Your task to perform on an android device: turn off data saver in the chrome app Image 0: 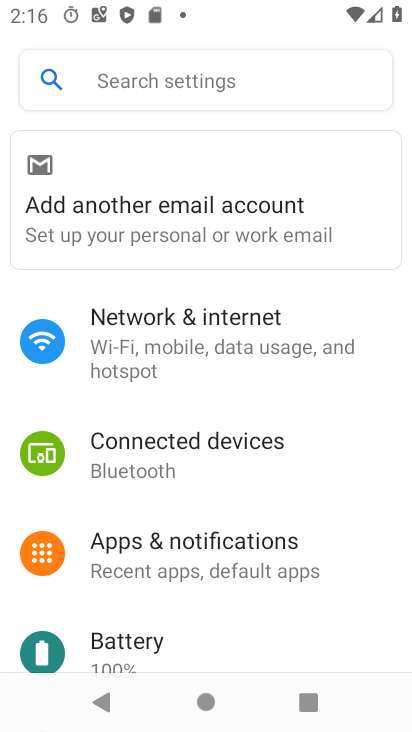
Step 0: press home button
Your task to perform on an android device: turn off data saver in the chrome app Image 1: 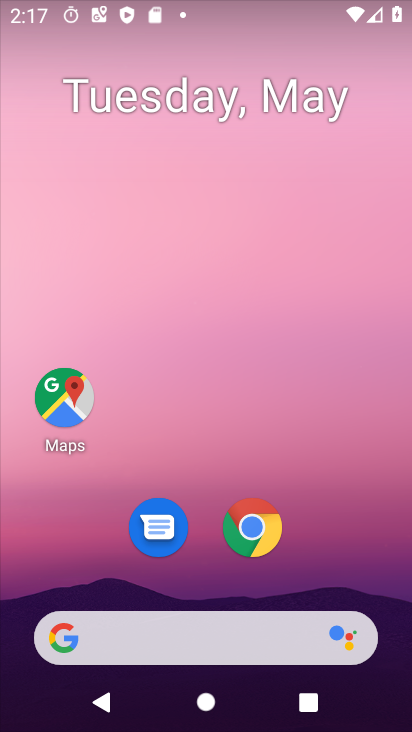
Step 1: drag from (270, 667) to (298, 228)
Your task to perform on an android device: turn off data saver in the chrome app Image 2: 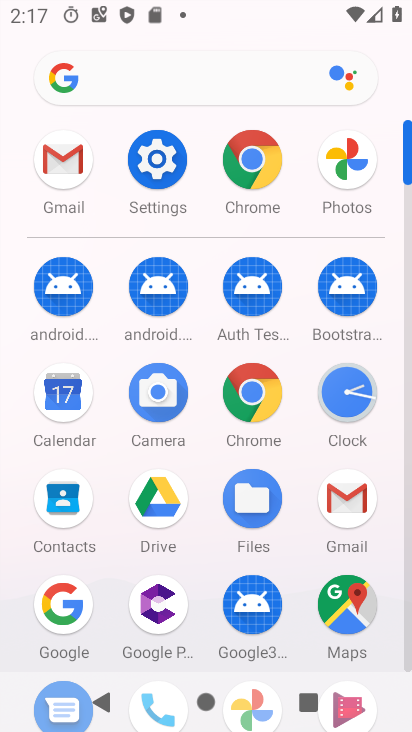
Step 2: click (260, 158)
Your task to perform on an android device: turn off data saver in the chrome app Image 3: 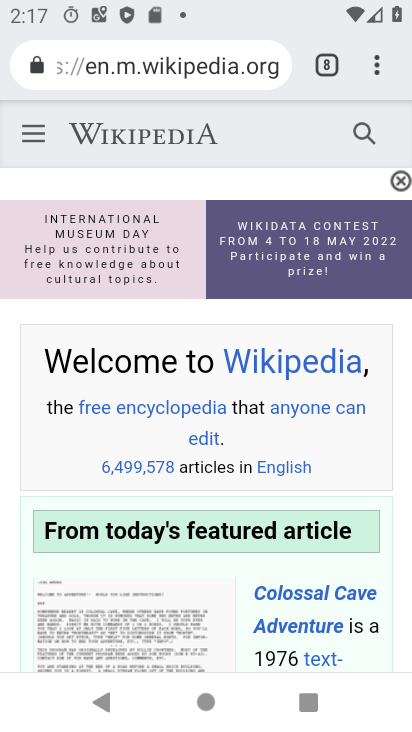
Step 3: click (355, 81)
Your task to perform on an android device: turn off data saver in the chrome app Image 4: 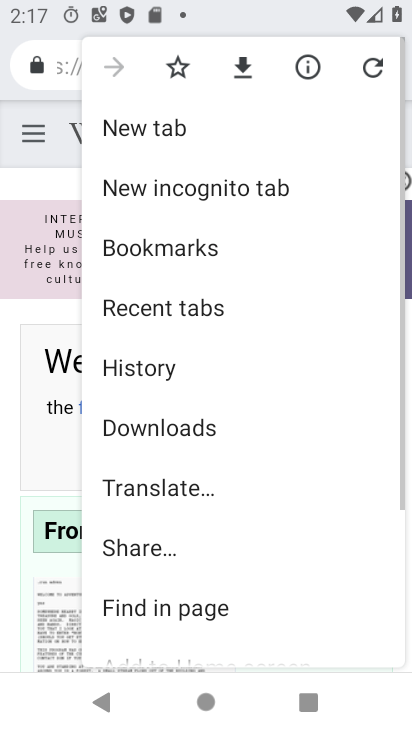
Step 4: drag from (204, 550) to (226, 337)
Your task to perform on an android device: turn off data saver in the chrome app Image 5: 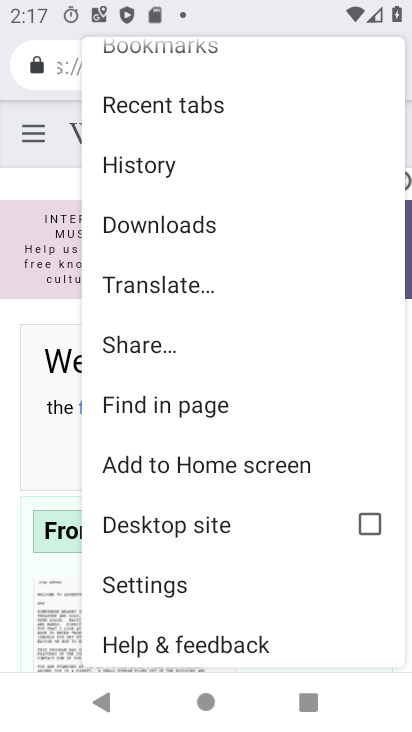
Step 5: click (174, 580)
Your task to perform on an android device: turn off data saver in the chrome app Image 6: 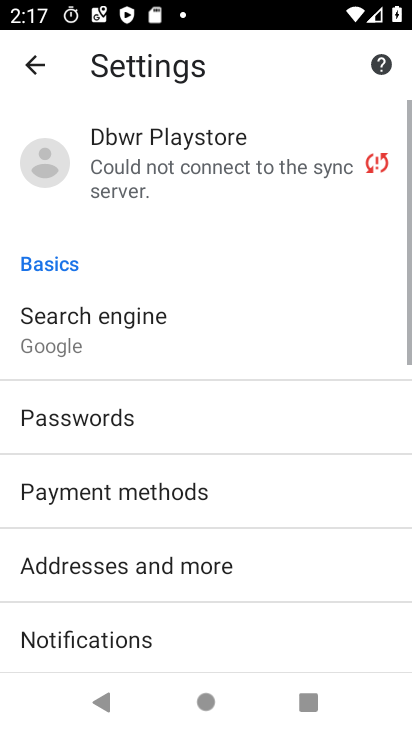
Step 6: drag from (147, 623) to (135, 326)
Your task to perform on an android device: turn off data saver in the chrome app Image 7: 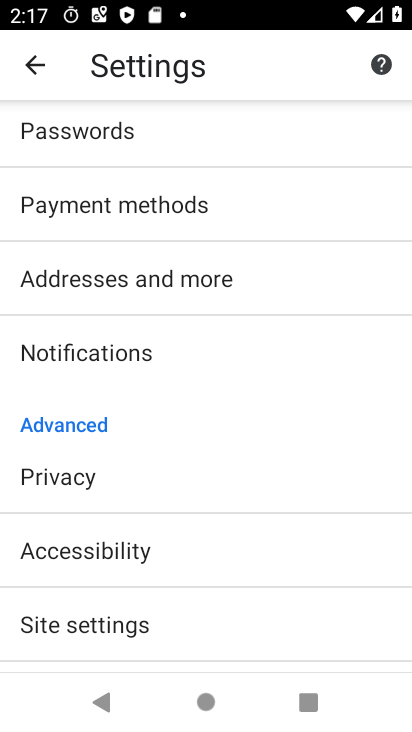
Step 7: drag from (140, 601) to (155, 330)
Your task to perform on an android device: turn off data saver in the chrome app Image 8: 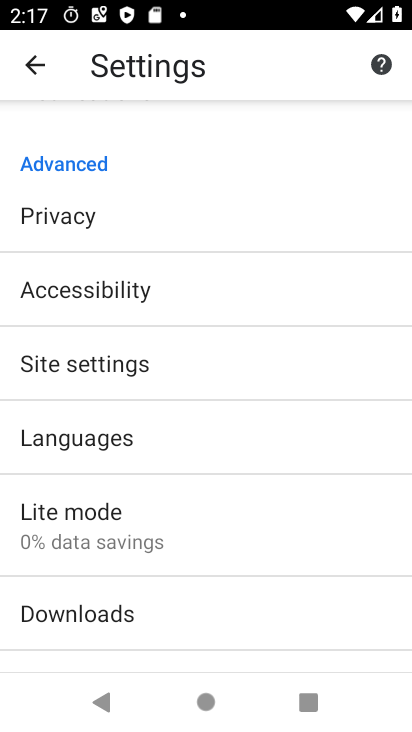
Step 8: click (121, 532)
Your task to perform on an android device: turn off data saver in the chrome app Image 9: 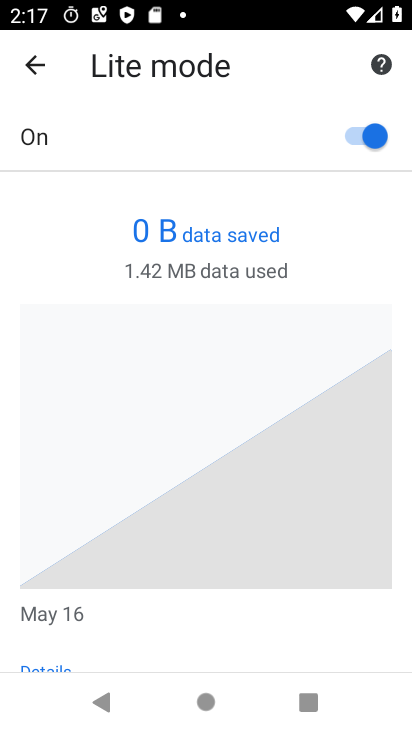
Step 9: task complete